Your task to perform on an android device: Open settings Image 0: 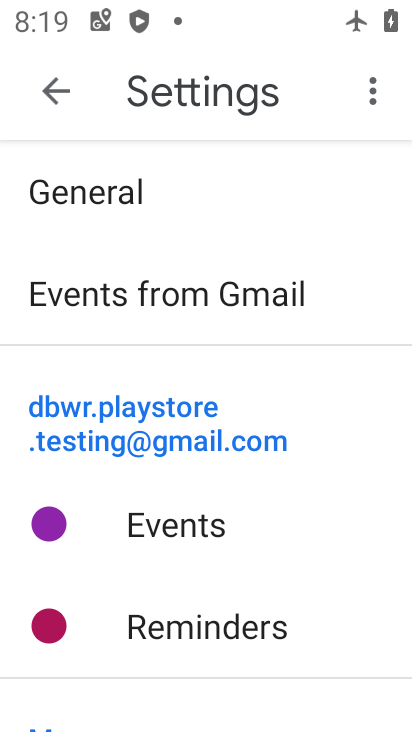
Step 0: press home button
Your task to perform on an android device: Open settings Image 1: 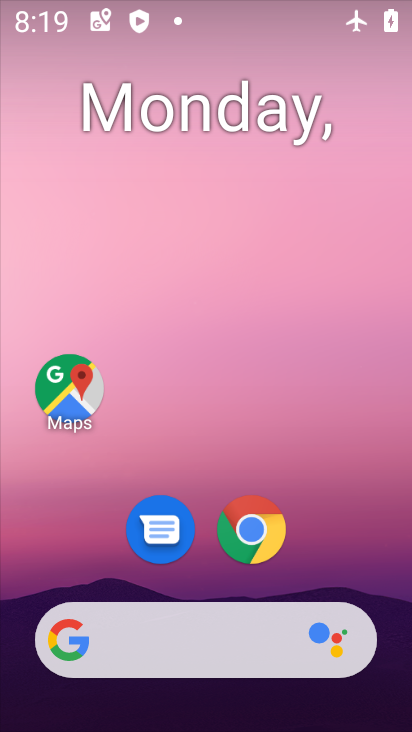
Step 1: drag from (199, 670) to (196, 348)
Your task to perform on an android device: Open settings Image 2: 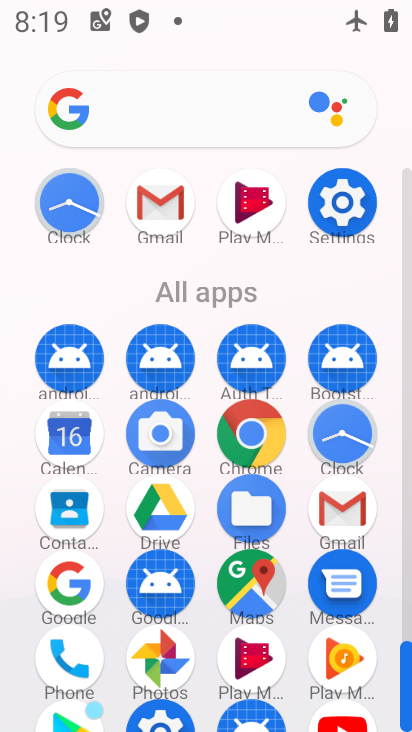
Step 2: click (329, 216)
Your task to perform on an android device: Open settings Image 3: 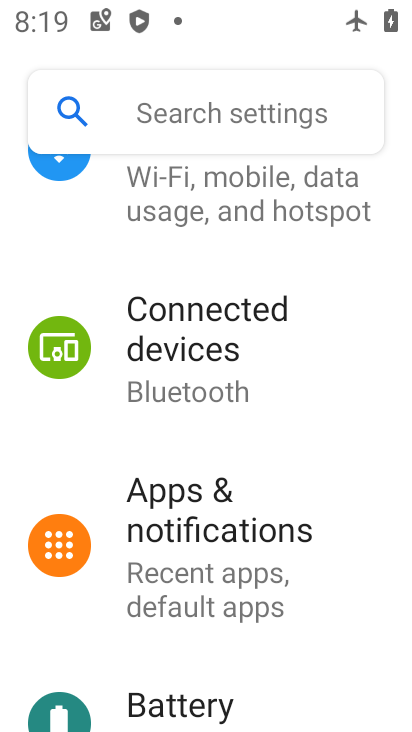
Step 3: task complete